Your task to perform on an android device: add a contact Image 0: 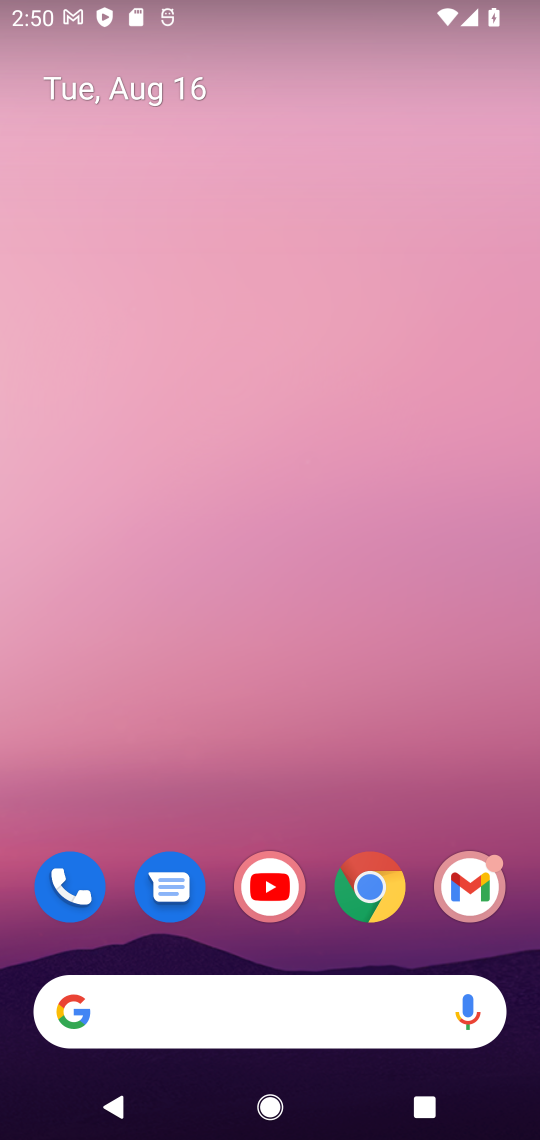
Step 0: drag from (322, 732) to (310, 26)
Your task to perform on an android device: add a contact Image 1: 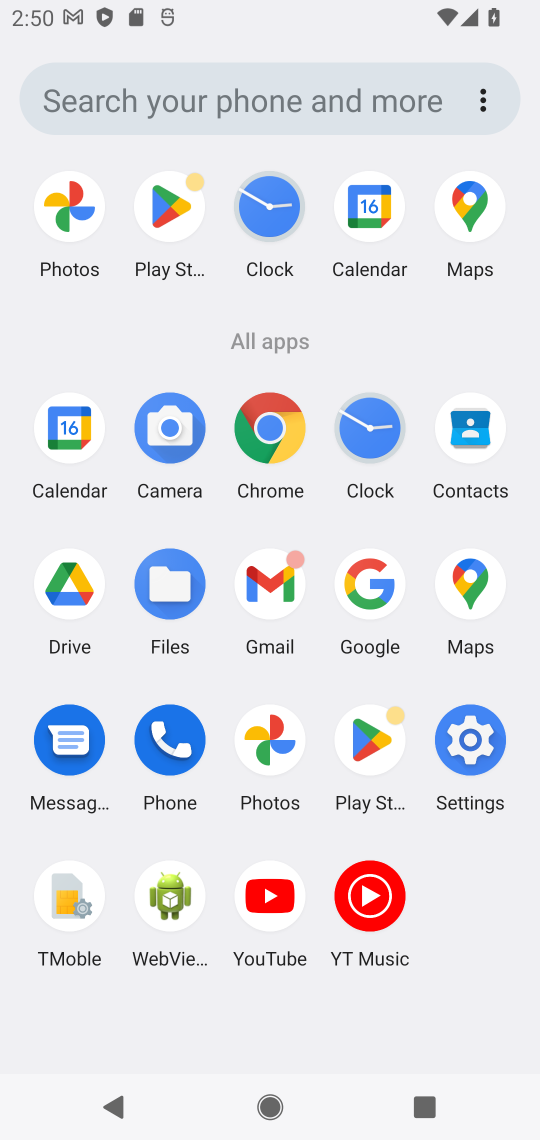
Step 1: click (471, 445)
Your task to perform on an android device: add a contact Image 2: 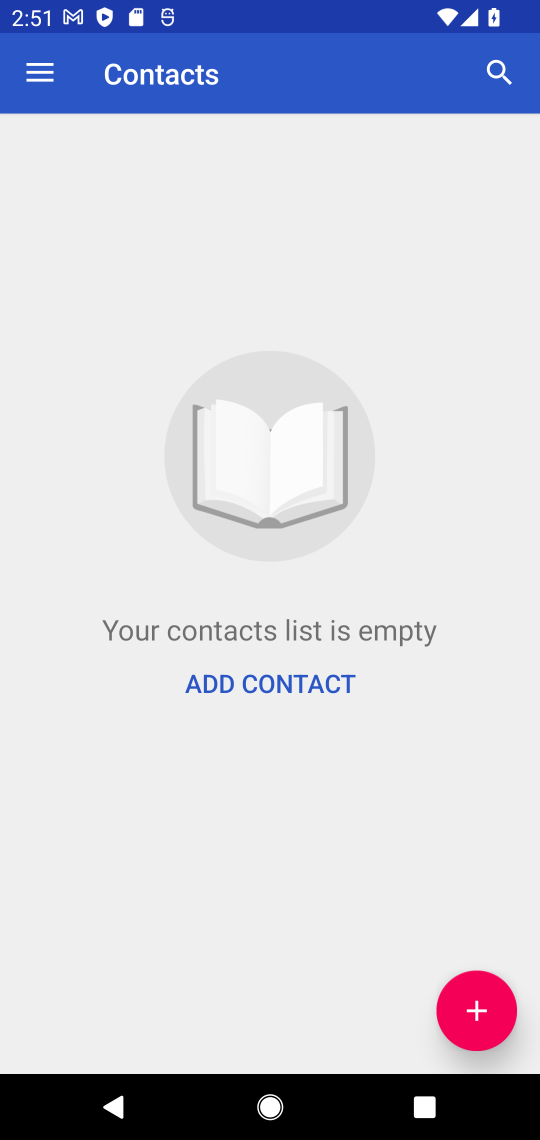
Step 2: click (469, 1006)
Your task to perform on an android device: add a contact Image 3: 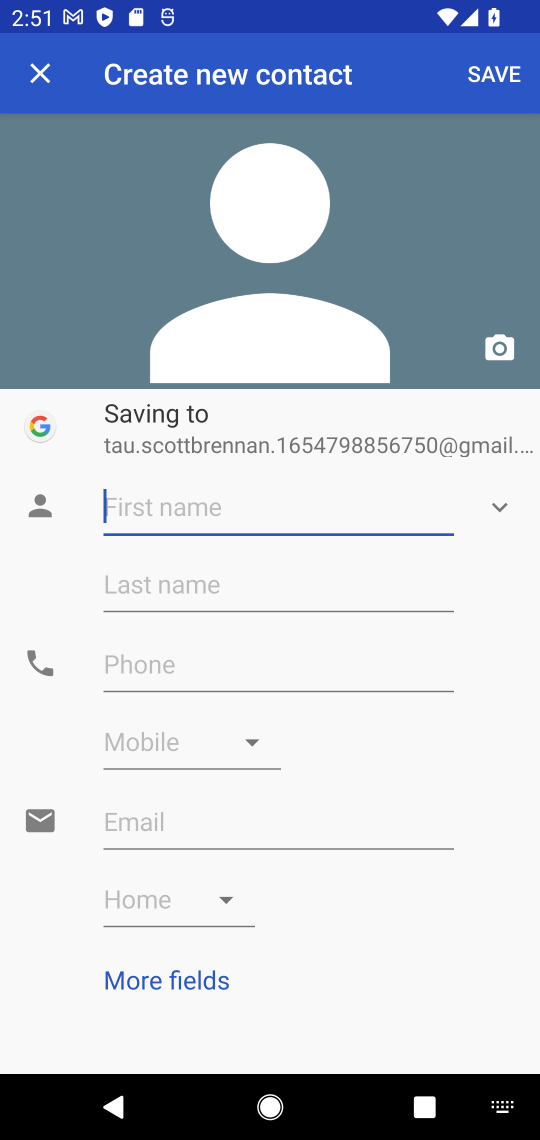
Step 3: type ""
Your task to perform on an android device: add a contact Image 4: 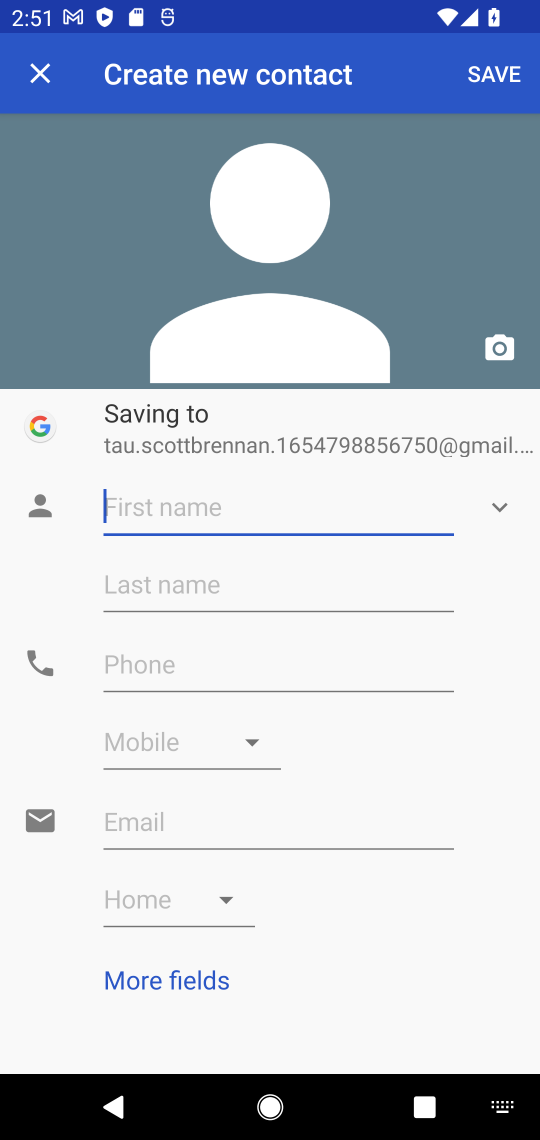
Step 4: type "om"
Your task to perform on an android device: add a contact Image 5: 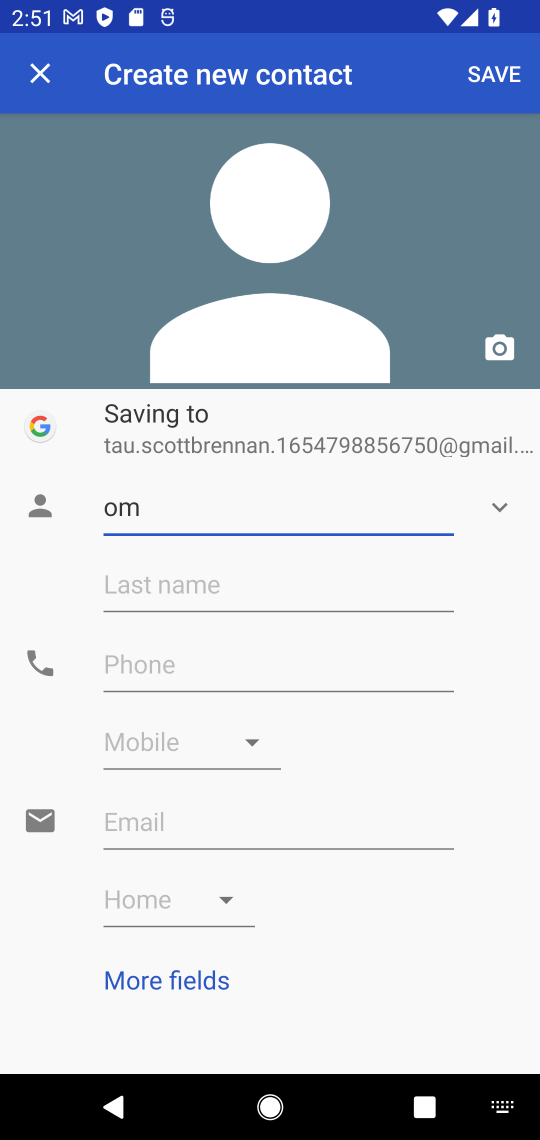
Step 5: click (492, 68)
Your task to perform on an android device: add a contact Image 6: 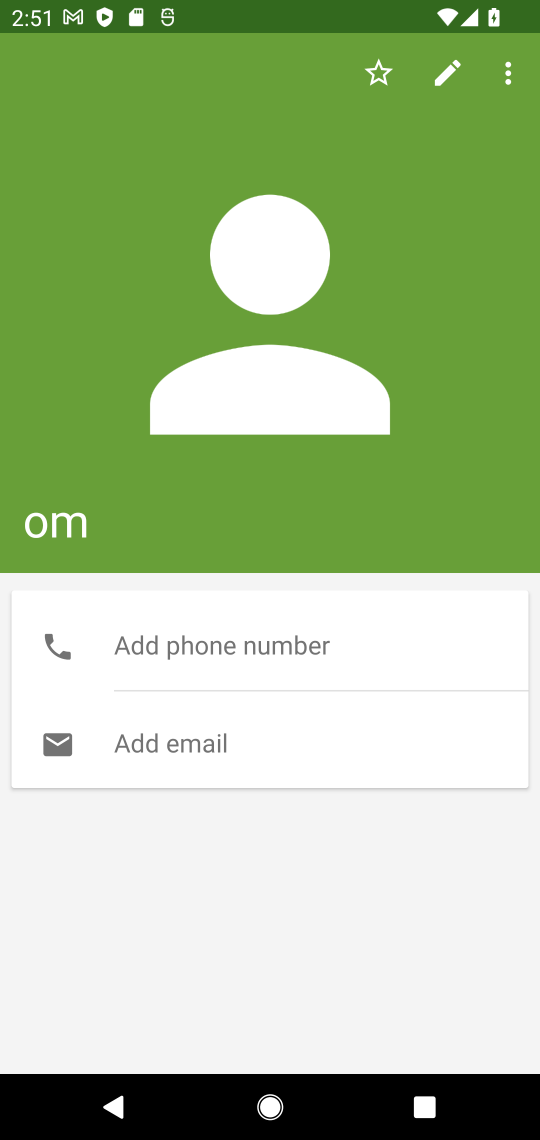
Step 6: task complete